Your task to perform on an android device: Go to display settings Image 0: 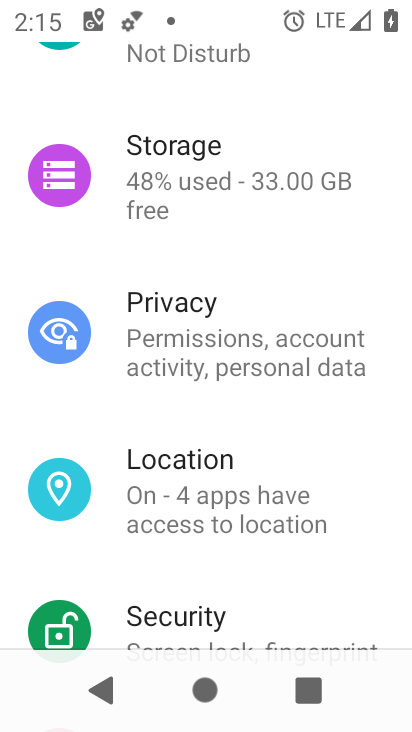
Step 0: press home button
Your task to perform on an android device: Go to display settings Image 1: 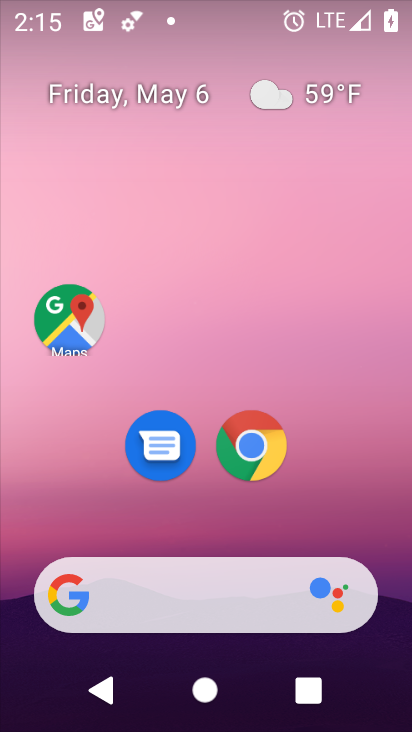
Step 1: drag from (312, 532) to (342, 12)
Your task to perform on an android device: Go to display settings Image 2: 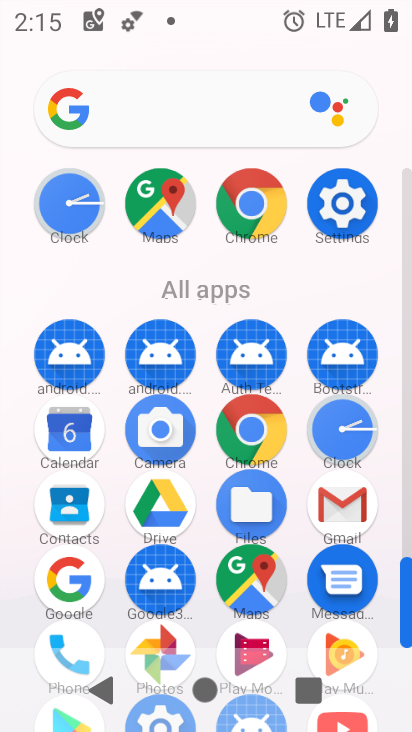
Step 2: click (351, 208)
Your task to perform on an android device: Go to display settings Image 3: 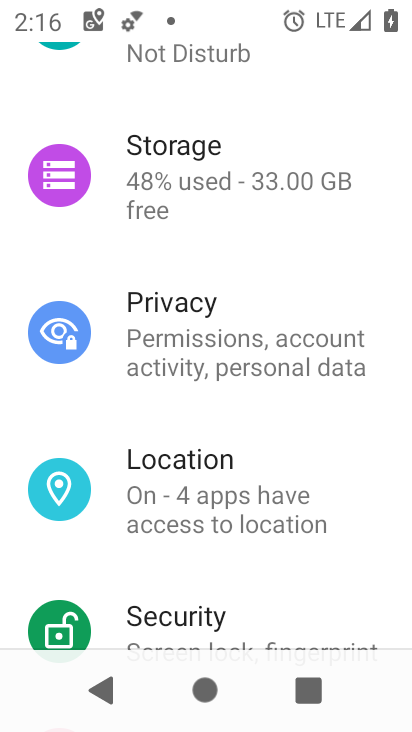
Step 3: drag from (159, 421) to (176, 488)
Your task to perform on an android device: Go to display settings Image 4: 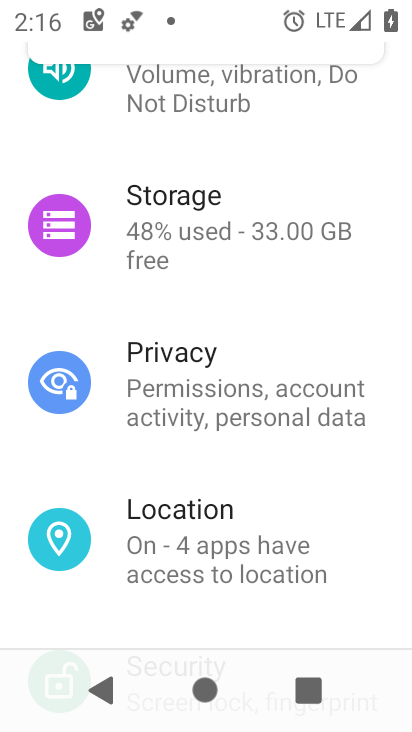
Step 4: drag from (168, 394) to (189, 454)
Your task to perform on an android device: Go to display settings Image 5: 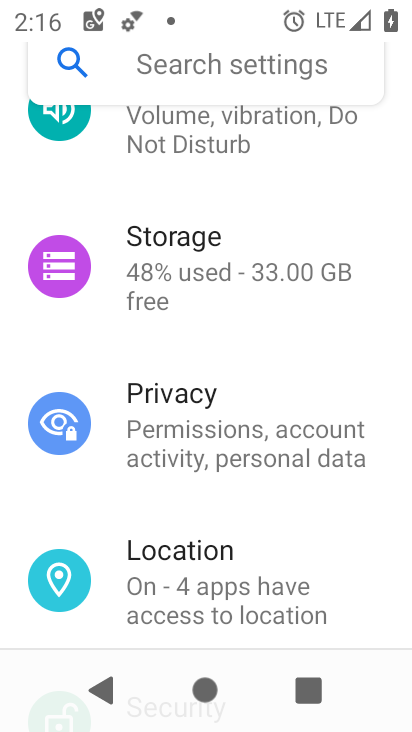
Step 5: drag from (195, 381) to (205, 464)
Your task to perform on an android device: Go to display settings Image 6: 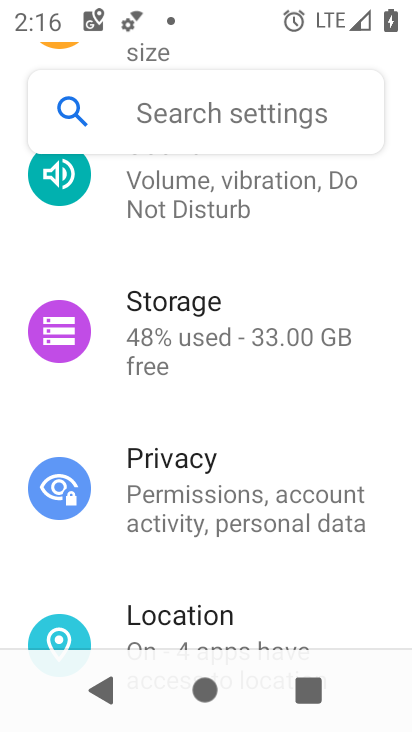
Step 6: drag from (192, 388) to (220, 467)
Your task to perform on an android device: Go to display settings Image 7: 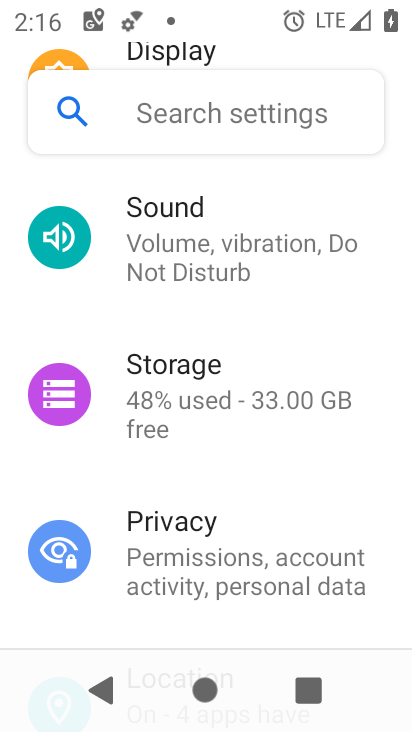
Step 7: drag from (225, 351) to (234, 417)
Your task to perform on an android device: Go to display settings Image 8: 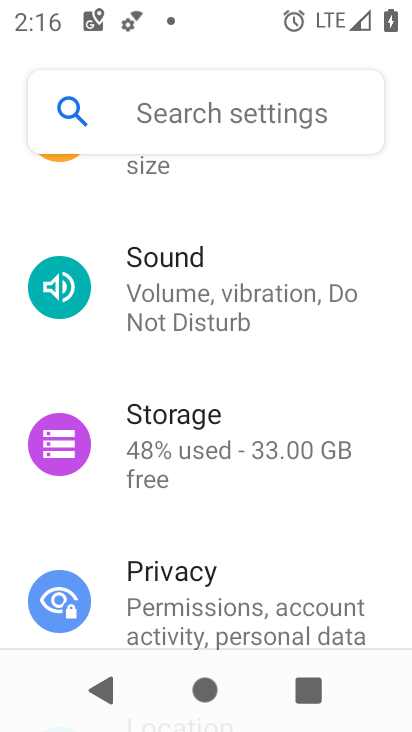
Step 8: drag from (246, 306) to (278, 421)
Your task to perform on an android device: Go to display settings Image 9: 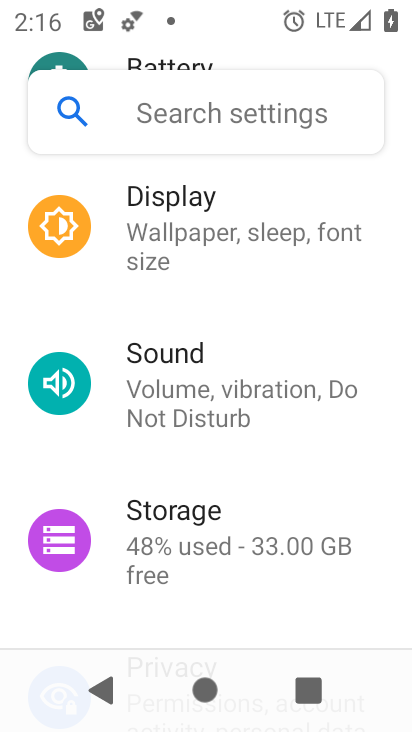
Step 9: drag from (290, 345) to (299, 461)
Your task to perform on an android device: Go to display settings Image 10: 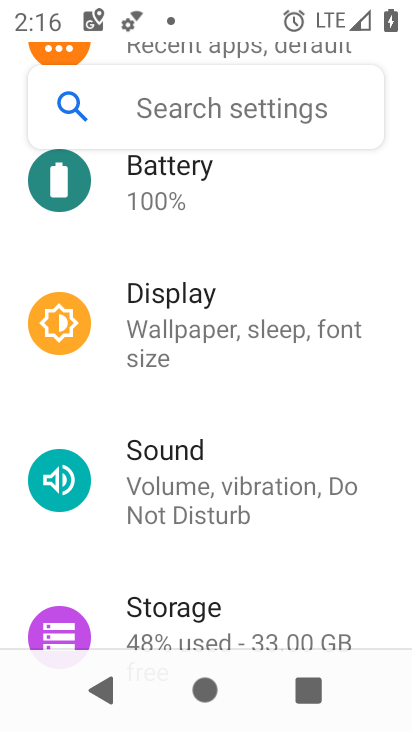
Step 10: click (242, 338)
Your task to perform on an android device: Go to display settings Image 11: 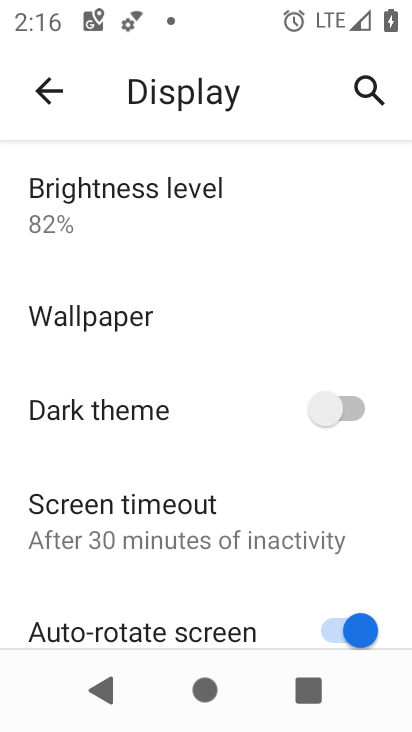
Step 11: task complete